Your task to perform on an android device: Play the last video I watched on Youtube Image 0: 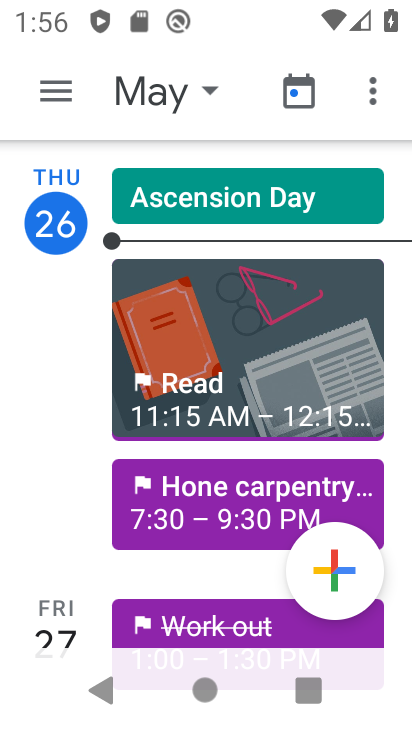
Step 0: press home button
Your task to perform on an android device: Play the last video I watched on Youtube Image 1: 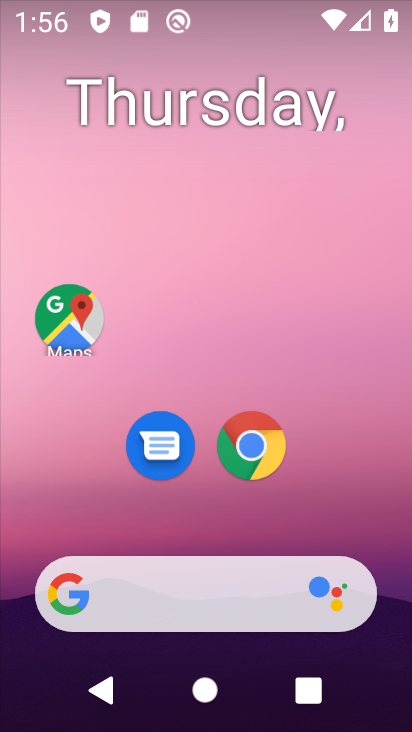
Step 1: drag from (0, 570) to (247, 119)
Your task to perform on an android device: Play the last video I watched on Youtube Image 2: 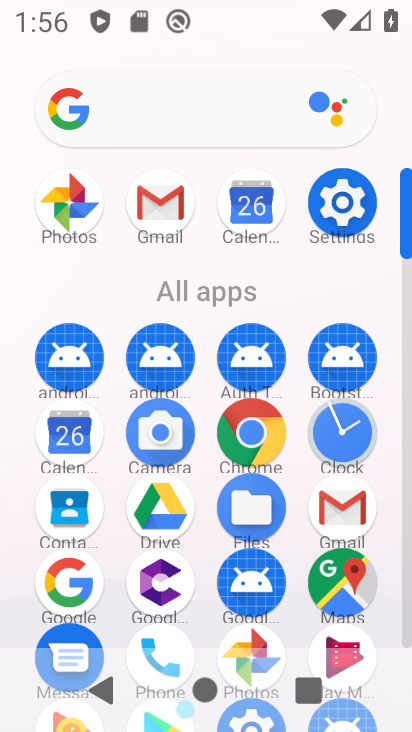
Step 2: drag from (5, 666) to (294, 135)
Your task to perform on an android device: Play the last video I watched on Youtube Image 3: 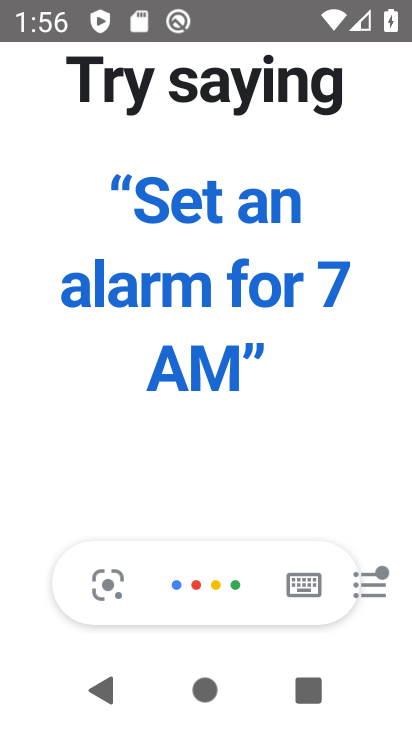
Step 3: drag from (30, 527) to (206, 268)
Your task to perform on an android device: Play the last video I watched on Youtube Image 4: 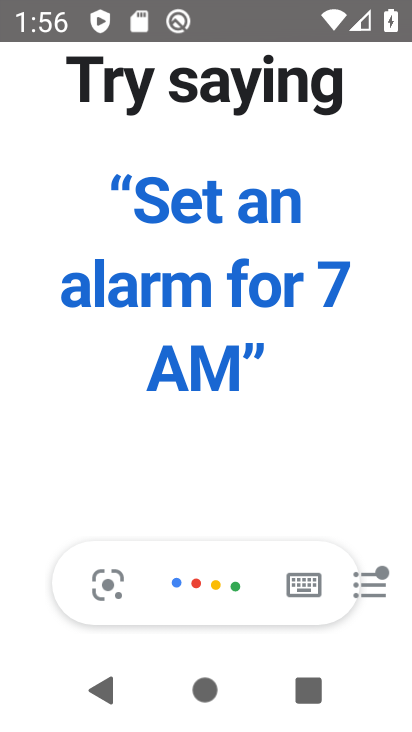
Step 4: press back button
Your task to perform on an android device: Play the last video I watched on Youtube Image 5: 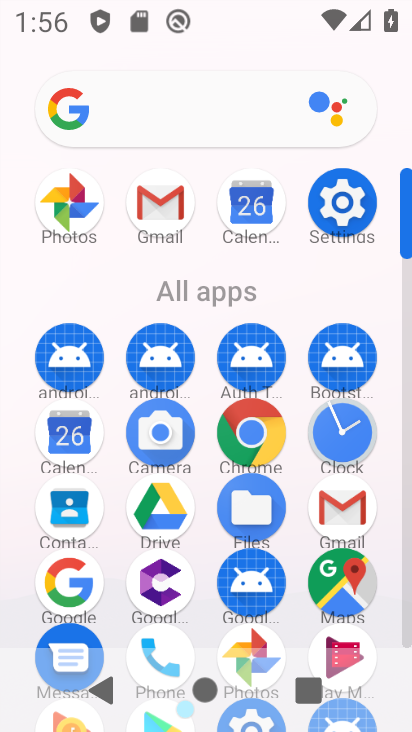
Step 5: drag from (99, 599) to (244, 195)
Your task to perform on an android device: Play the last video I watched on Youtube Image 6: 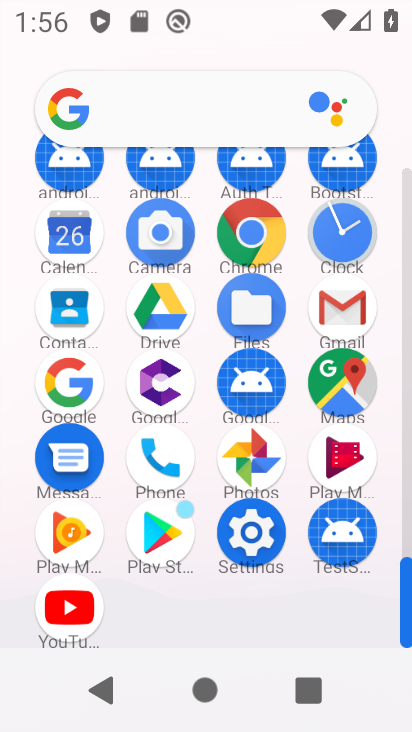
Step 6: click (55, 604)
Your task to perform on an android device: Play the last video I watched on Youtube Image 7: 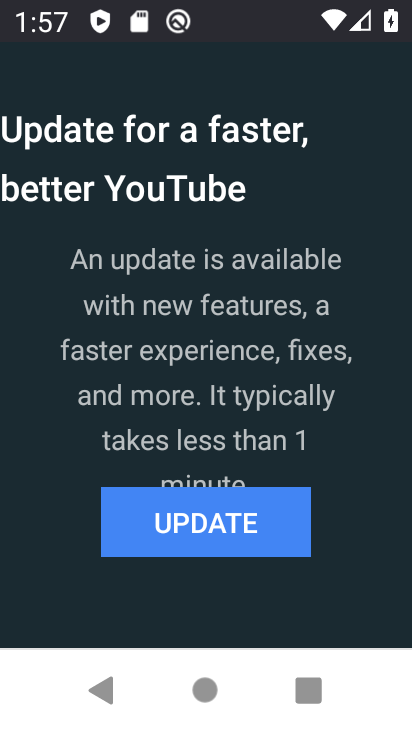
Step 7: task complete